Your task to perform on an android device: open chrome privacy settings Image 0: 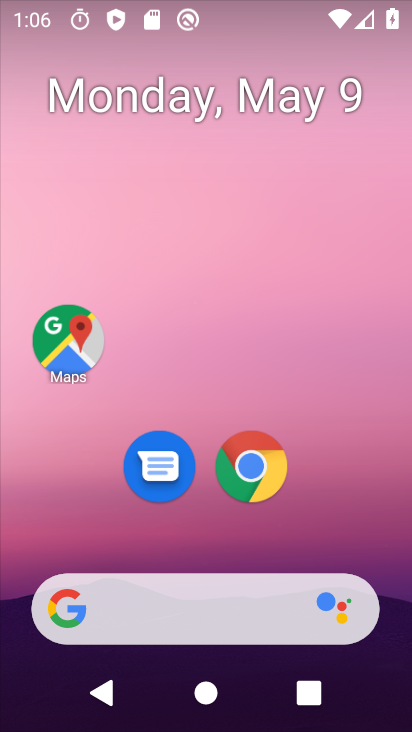
Step 0: drag from (204, 628) to (271, 0)
Your task to perform on an android device: open chrome privacy settings Image 1: 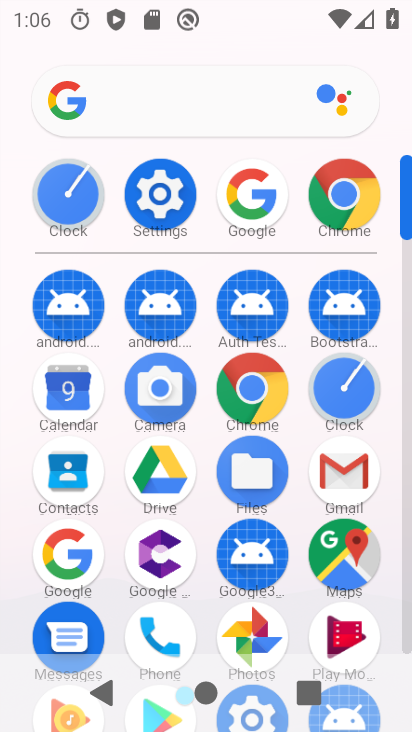
Step 1: click (345, 223)
Your task to perform on an android device: open chrome privacy settings Image 2: 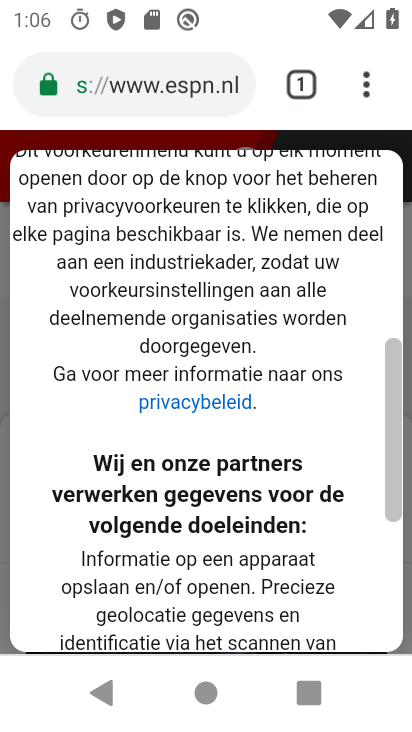
Step 2: click (360, 99)
Your task to perform on an android device: open chrome privacy settings Image 3: 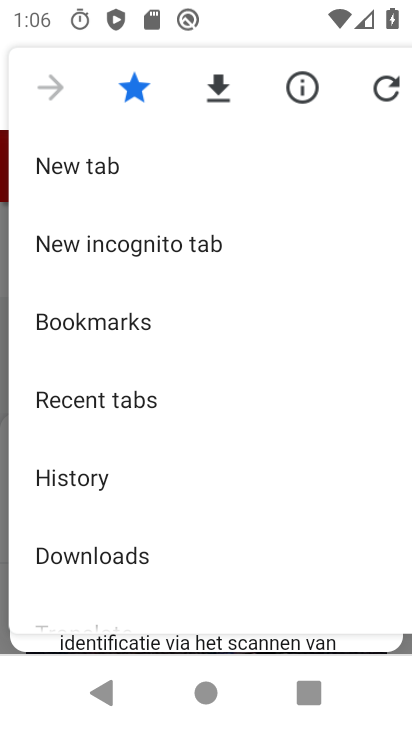
Step 3: drag from (185, 485) to (154, 225)
Your task to perform on an android device: open chrome privacy settings Image 4: 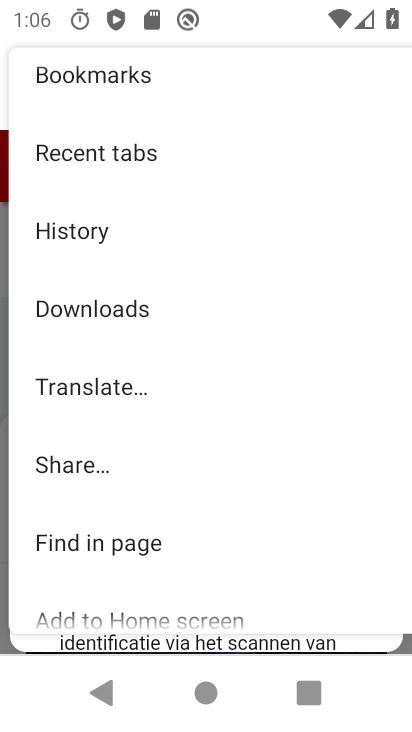
Step 4: drag from (216, 514) to (197, 300)
Your task to perform on an android device: open chrome privacy settings Image 5: 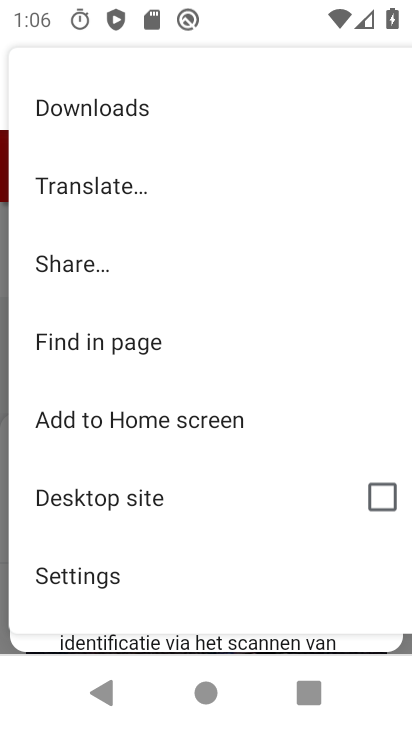
Step 5: drag from (188, 525) to (173, 192)
Your task to perform on an android device: open chrome privacy settings Image 6: 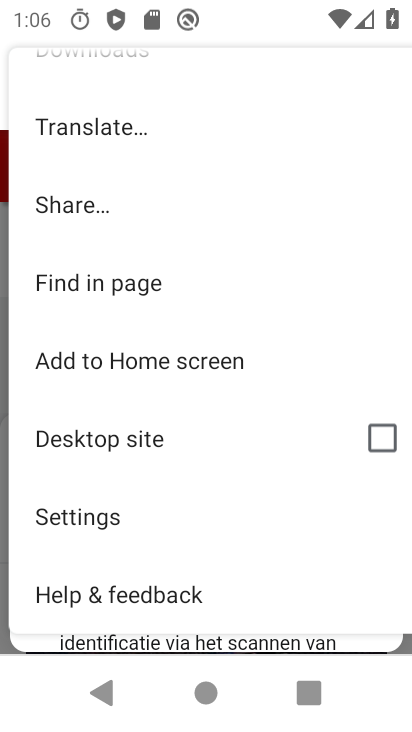
Step 6: click (139, 517)
Your task to perform on an android device: open chrome privacy settings Image 7: 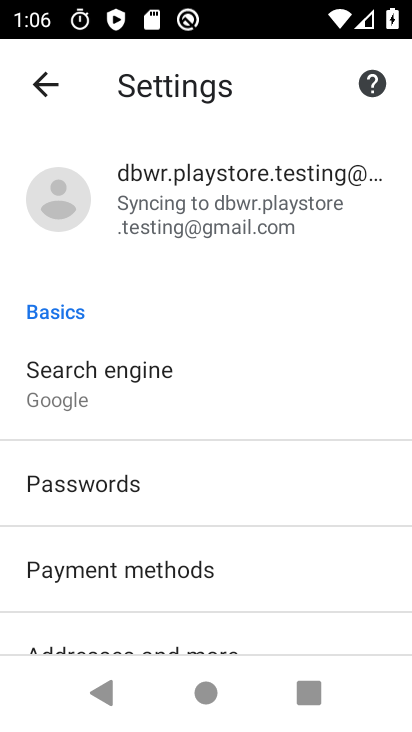
Step 7: drag from (159, 572) to (213, 133)
Your task to perform on an android device: open chrome privacy settings Image 8: 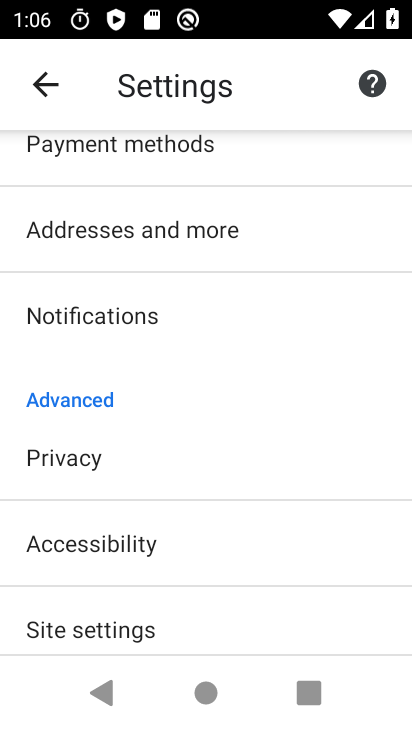
Step 8: drag from (152, 581) to (203, 190)
Your task to perform on an android device: open chrome privacy settings Image 9: 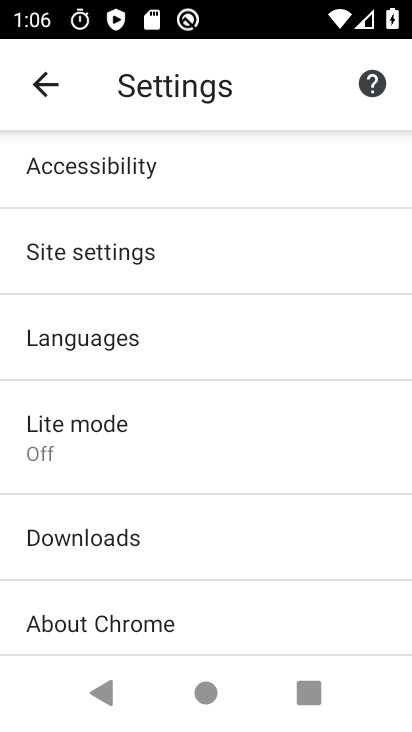
Step 9: drag from (149, 551) to (191, 201)
Your task to perform on an android device: open chrome privacy settings Image 10: 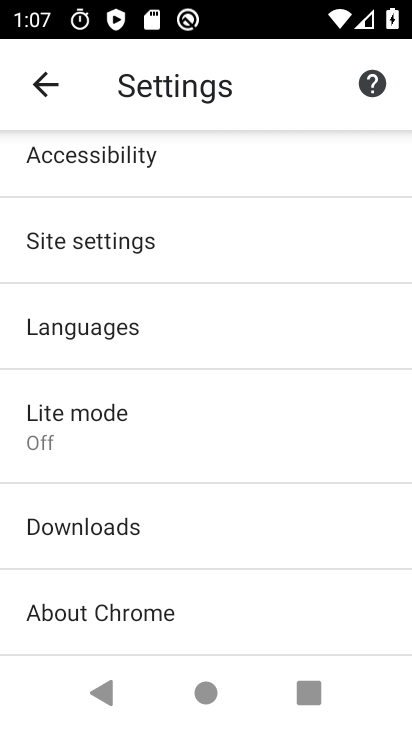
Step 10: drag from (152, 249) to (151, 348)
Your task to perform on an android device: open chrome privacy settings Image 11: 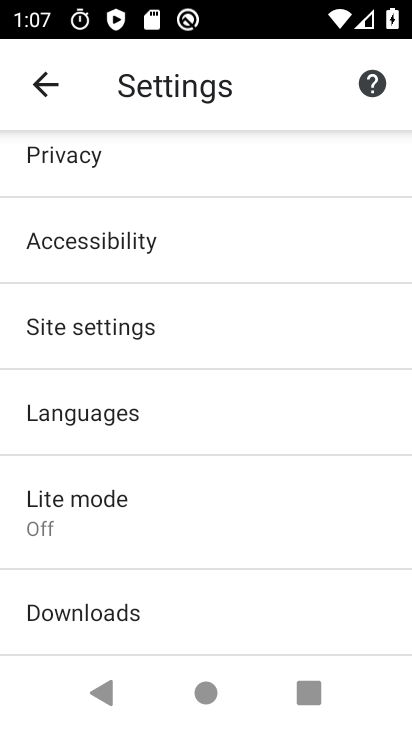
Step 11: click (136, 184)
Your task to perform on an android device: open chrome privacy settings Image 12: 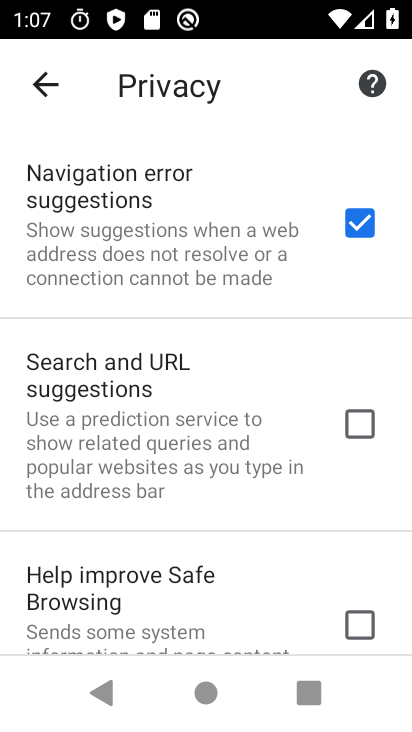
Step 12: task complete